Your task to perform on an android device: turn on airplane mode Image 0: 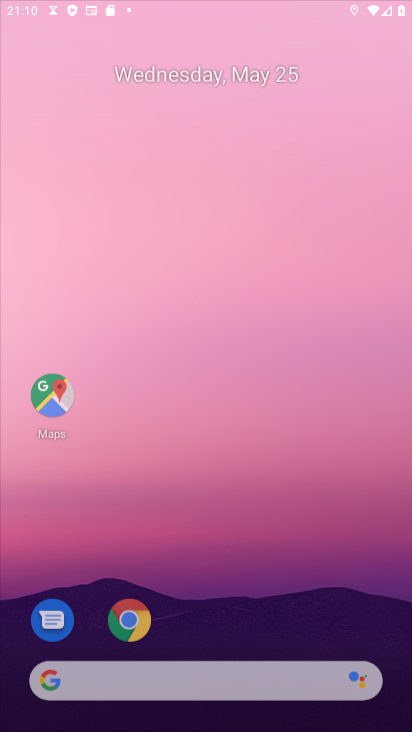
Step 0: click (321, 30)
Your task to perform on an android device: turn on airplane mode Image 1: 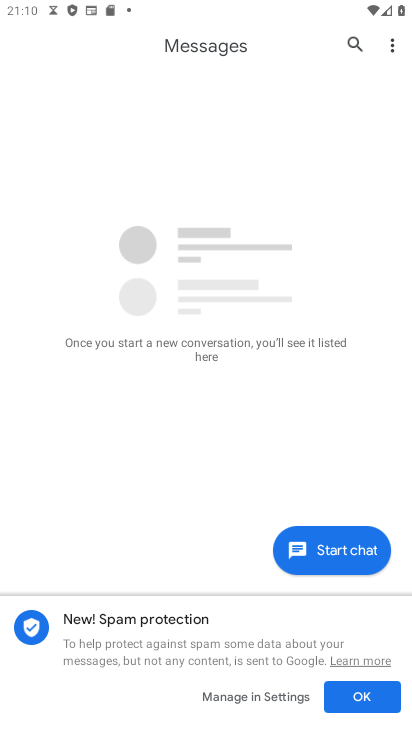
Step 1: press home button
Your task to perform on an android device: turn on airplane mode Image 2: 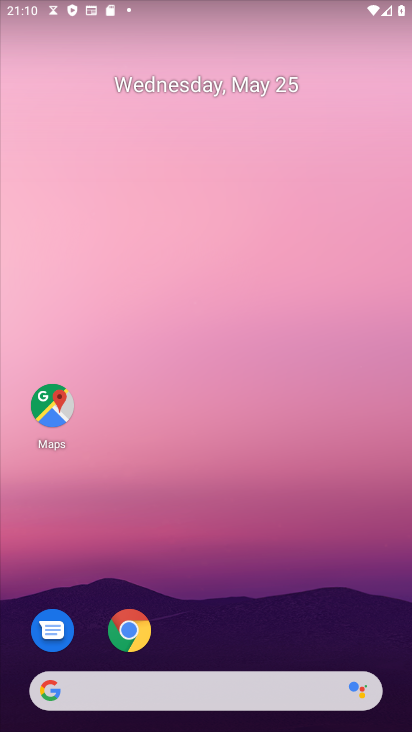
Step 2: drag from (265, 457) to (255, 0)
Your task to perform on an android device: turn on airplane mode Image 3: 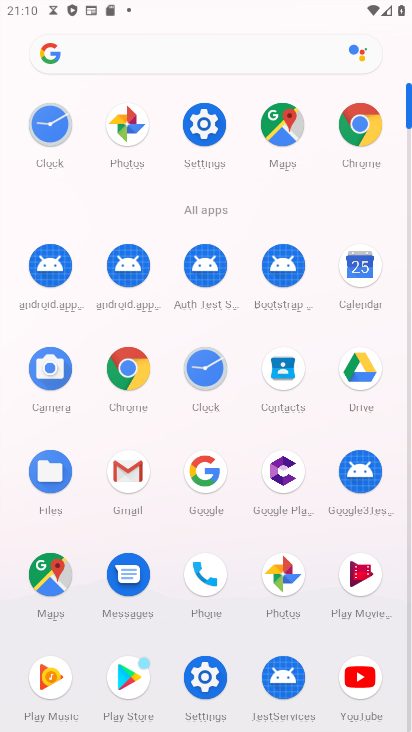
Step 3: click (204, 118)
Your task to perform on an android device: turn on airplane mode Image 4: 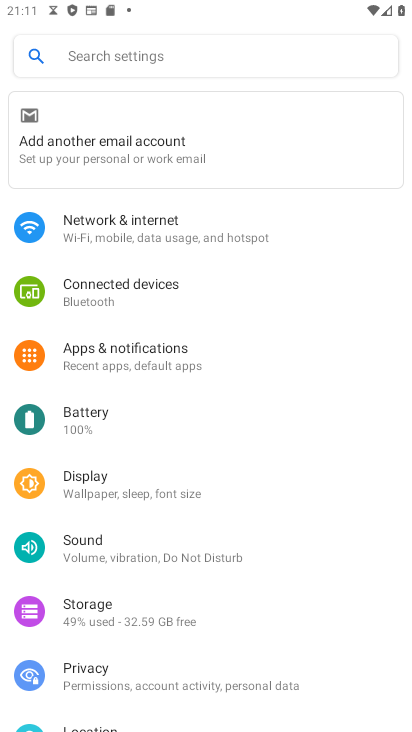
Step 4: click (260, 233)
Your task to perform on an android device: turn on airplane mode Image 5: 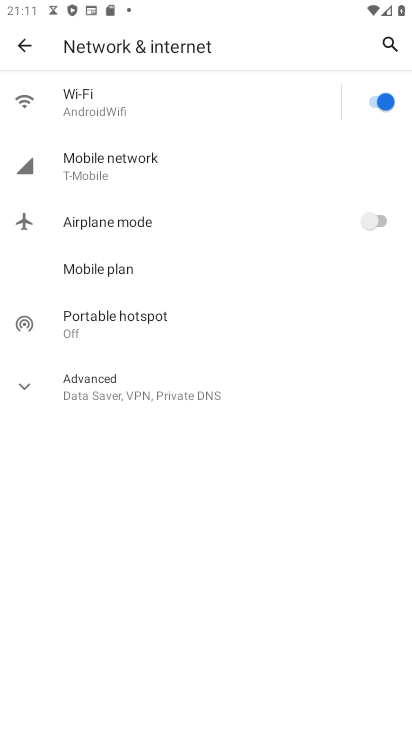
Step 5: click (387, 217)
Your task to perform on an android device: turn on airplane mode Image 6: 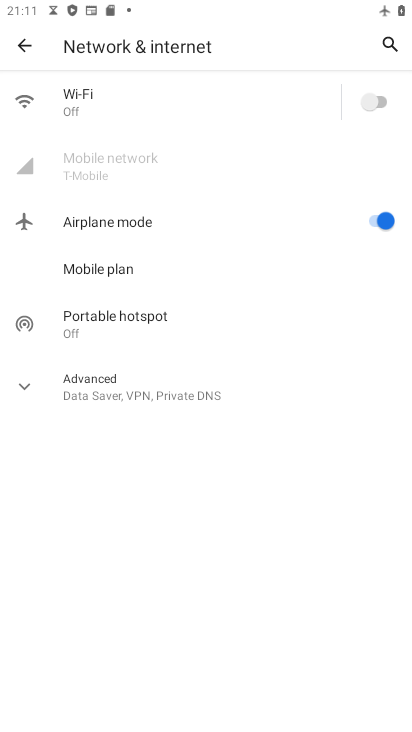
Step 6: task complete